Your task to perform on an android device: Open the web browser Image 0: 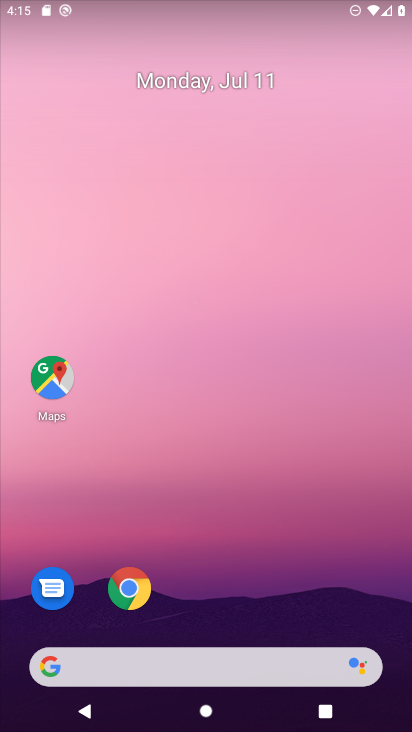
Step 0: click (131, 594)
Your task to perform on an android device: Open the web browser Image 1: 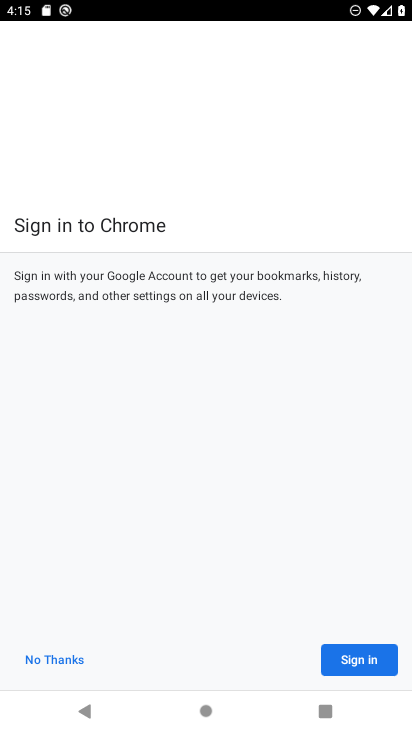
Step 1: click (45, 660)
Your task to perform on an android device: Open the web browser Image 2: 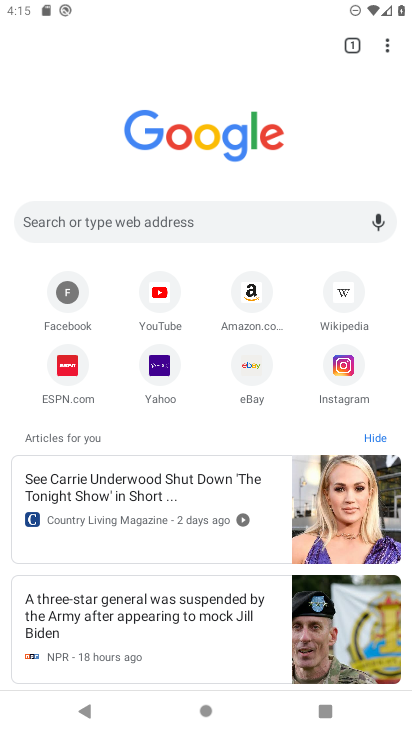
Step 2: task complete